Your task to perform on an android device: turn notification dots on Image 0: 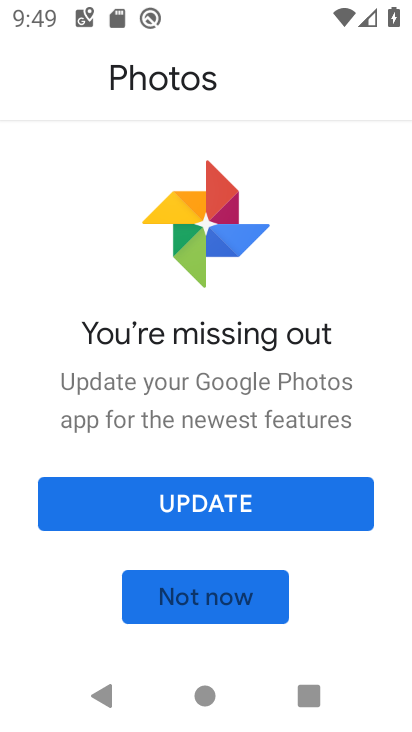
Step 0: press home button
Your task to perform on an android device: turn notification dots on Image 1: 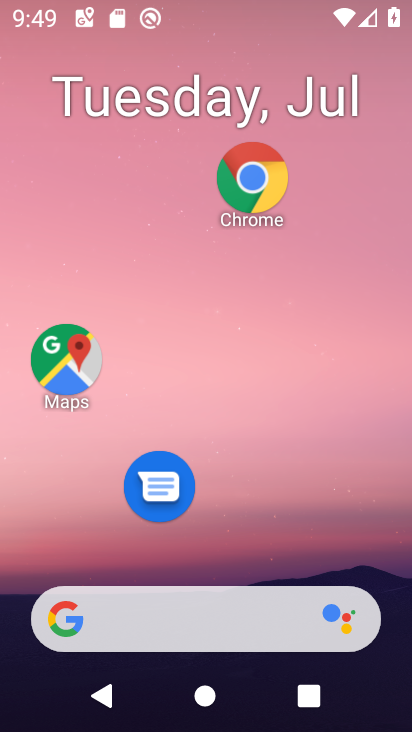
Step 1: drag from (230, 696) to (238, 192)
Your task to perform on an android device: turn notification dots on Image 2: 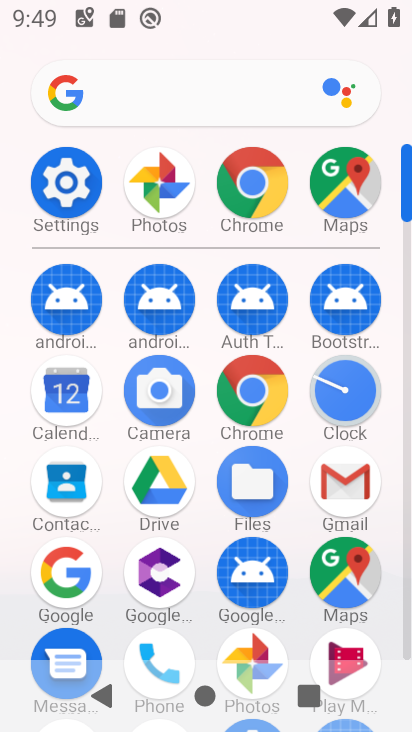
Step 2: click (76, 218)
Your task to perform on an android device: turn notification dots on Image 3: 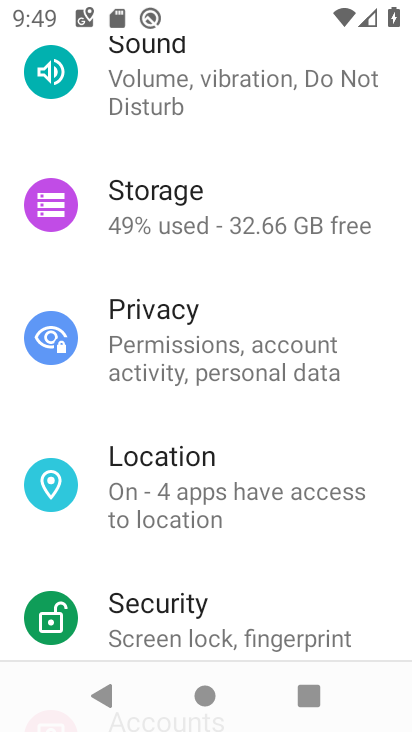
Step 3: drag from (269, 292) to (255, 554)
Your task to perform on an android device: turn notification dots on Image 4: 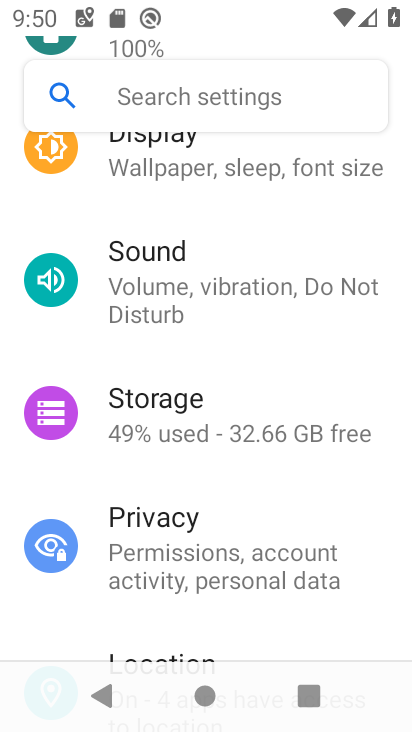
Step 4: drag from (206, 265) to (166, 545)
Your task to perform on an android device: turn notification dots on Image 5: 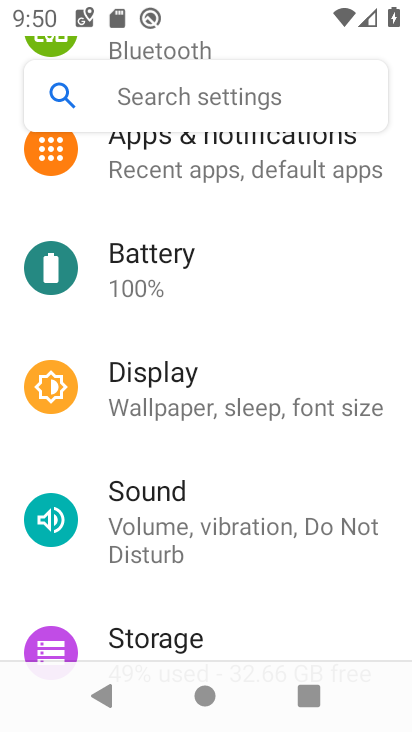
Step 5: click (240, 173)
Your task to perform on an android device: turn notification dots on Image 6: 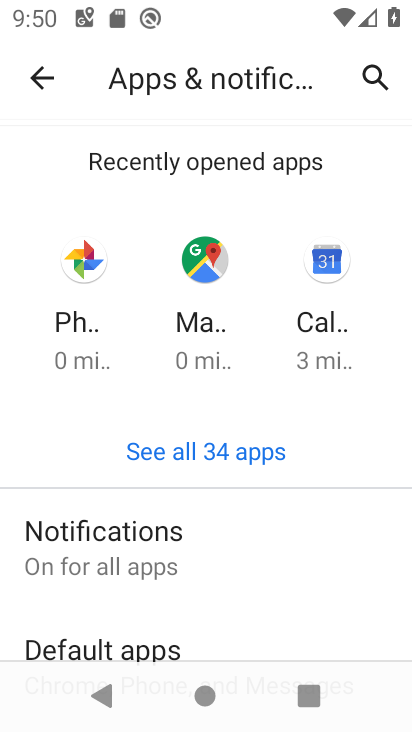
Step 6: click (163, 544)
Your task to perform on an android device: turn notification dots on Image 7: 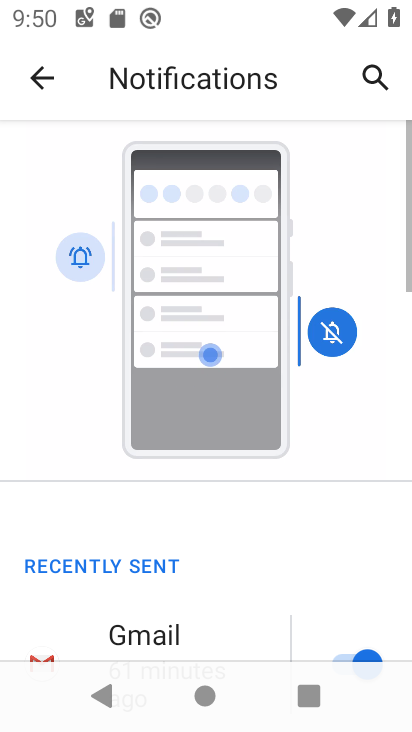
Step 7: drag from (182, 483) to (211, 181)
Your task to perform on an android device: turn notification dots on Image 8: 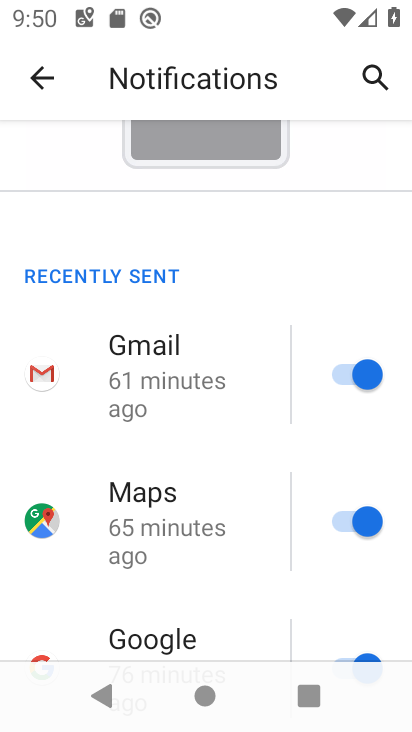
Step 8: drag from (186, 582) to (189, 280)
Your task to perform on an android device: turn notification dots on Image 9: 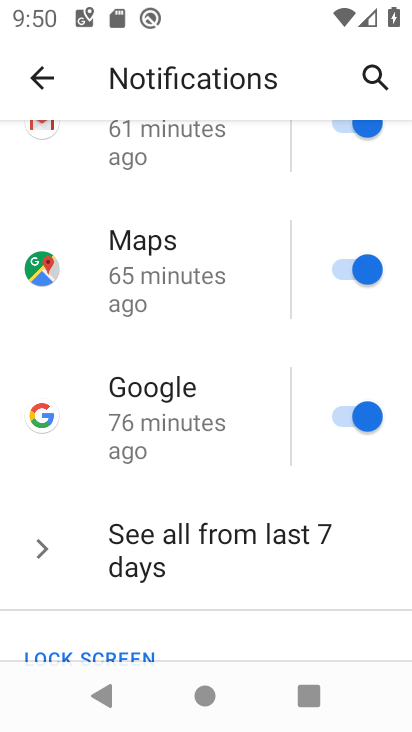
Step 9: drag from (205, 621) to (228, 347)
Your task to perform on an android device: turn notification dots on Image 10: 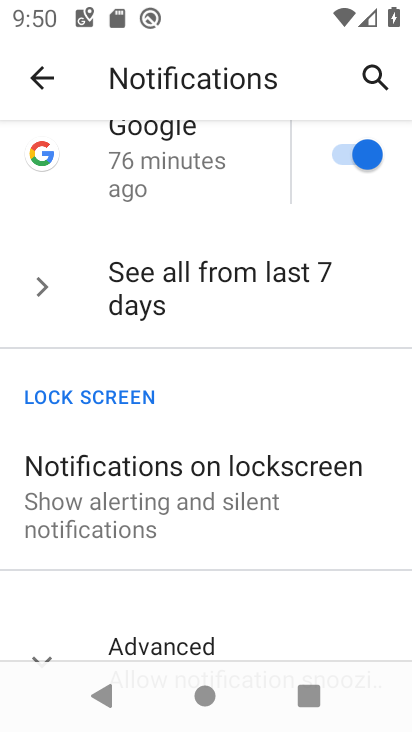
Step 10: drag from (215, 559) to (227, 326)
Your task to perform on an android device: turn notification dots on Image 11: 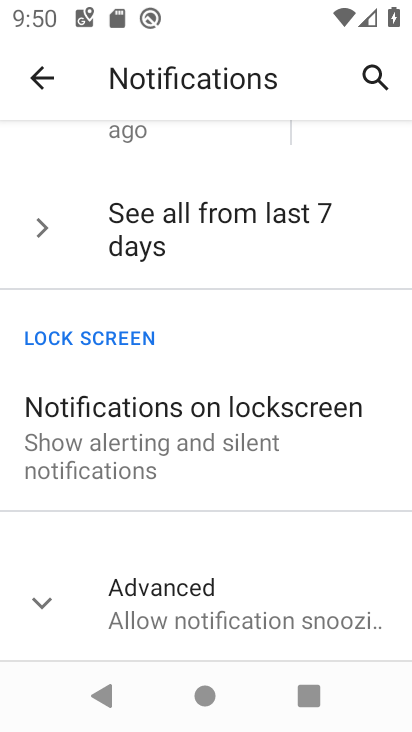
Step 11: click (210, 630)
Your task to perform on an android device: turn notification dots on Image 12: 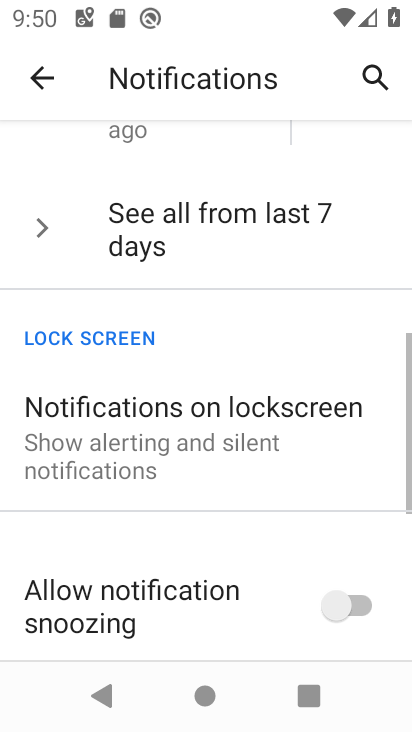
Step 12: task complete